Your task to perform on an android device: turn off location history Image 0: 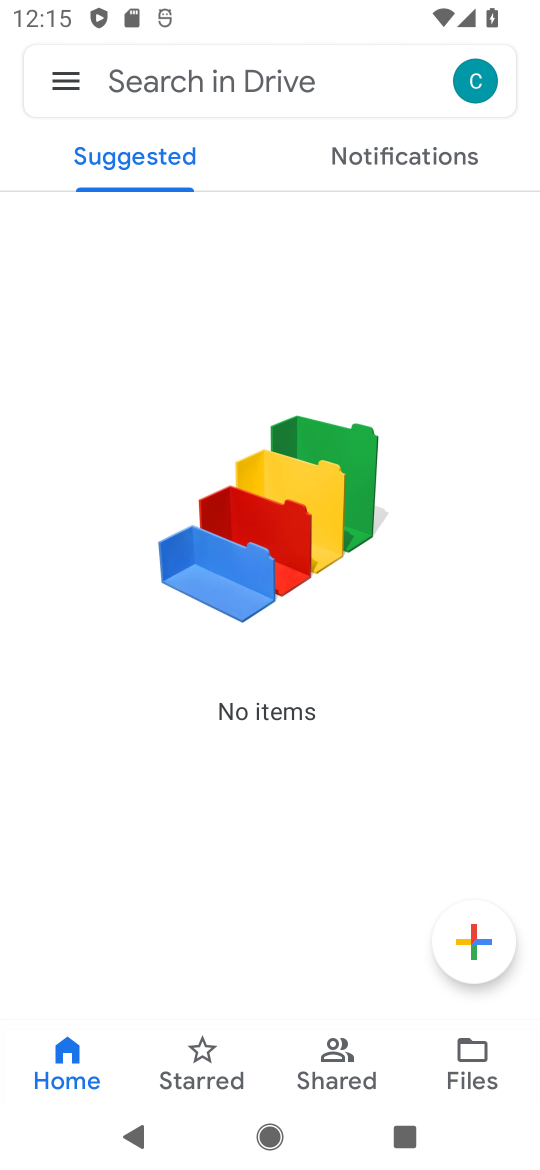
Step 0: press back button
Your task to perform on an android device: turn off location history Image 1: 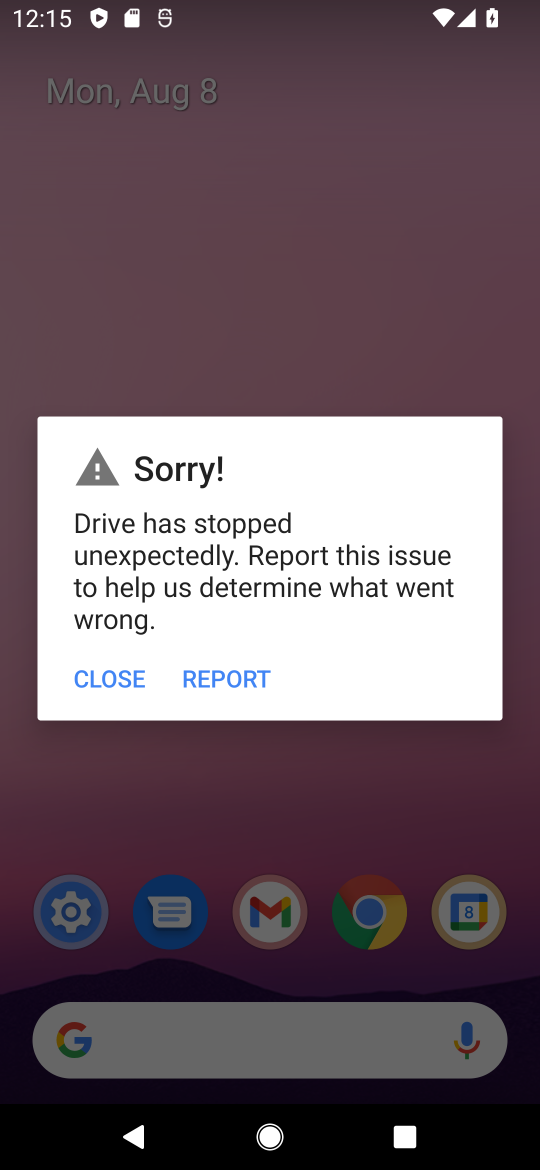
Step 1: click (94, 677)
Your task to perform on an android device: turn off location history Image 2: 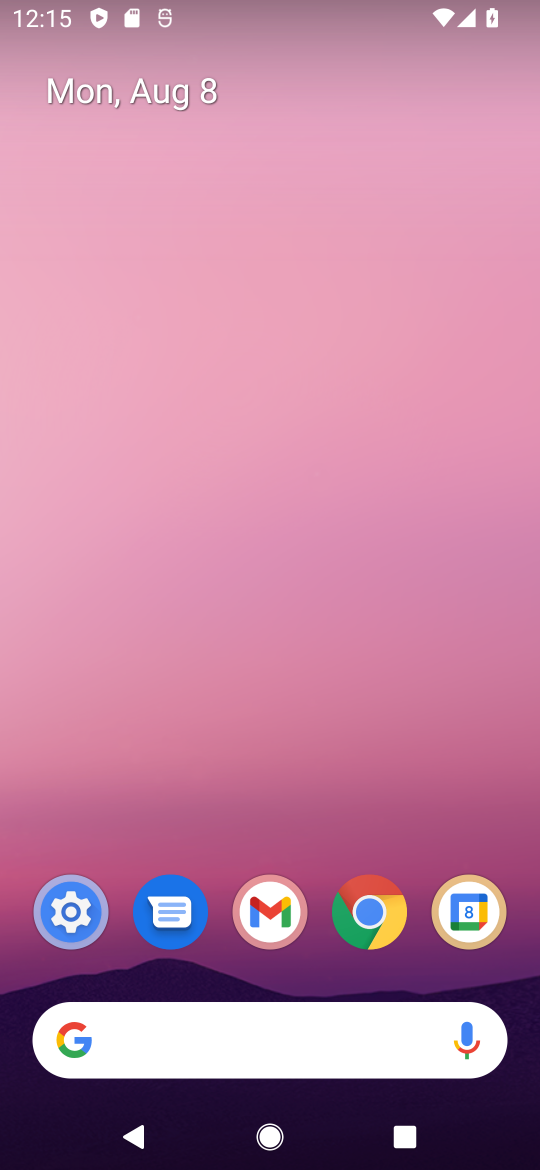
Step 2: click (85, 913)
Your task to perform on an android device: turn off location history Image 3: 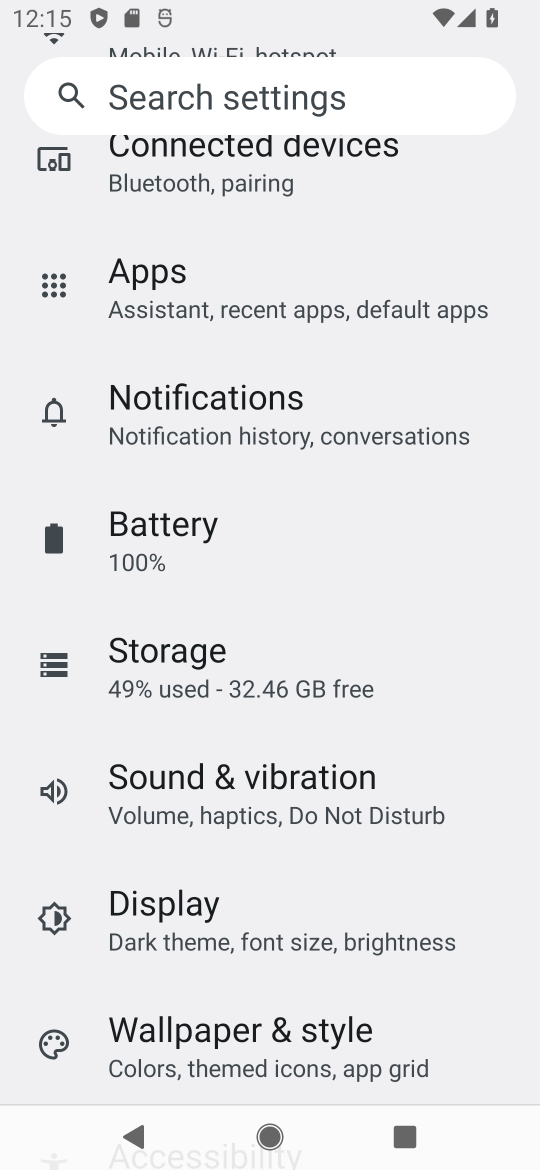
Step 3: drag from (234, 271) to (419, 280)
Your task to perform on an android device: turn off location history Image 4: 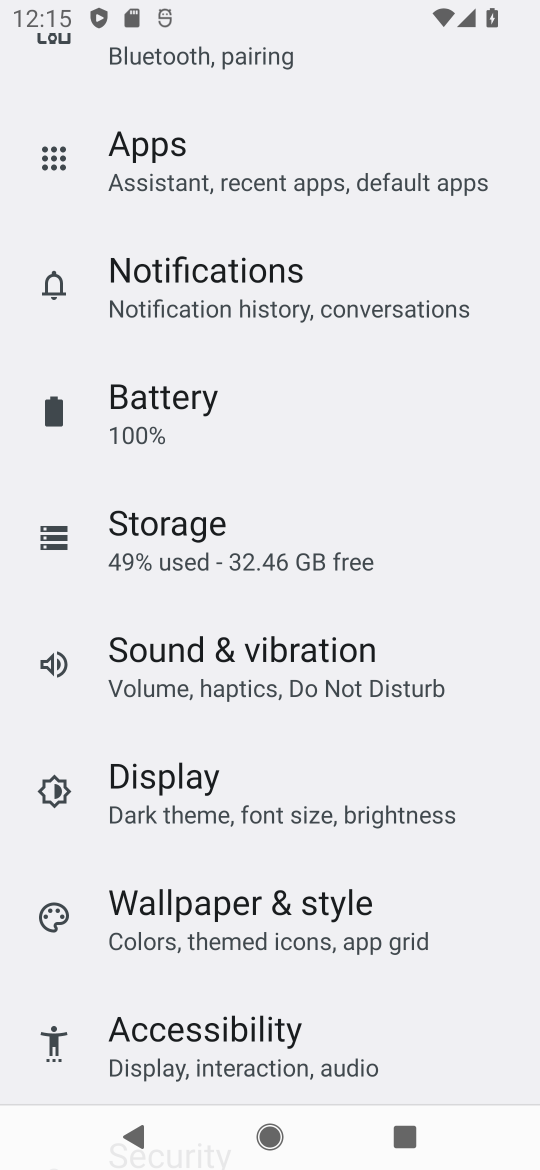
Step 4: drag from (168, 977) to (294, 213)
Your task to perform on an android device: turn off location history Image 5: 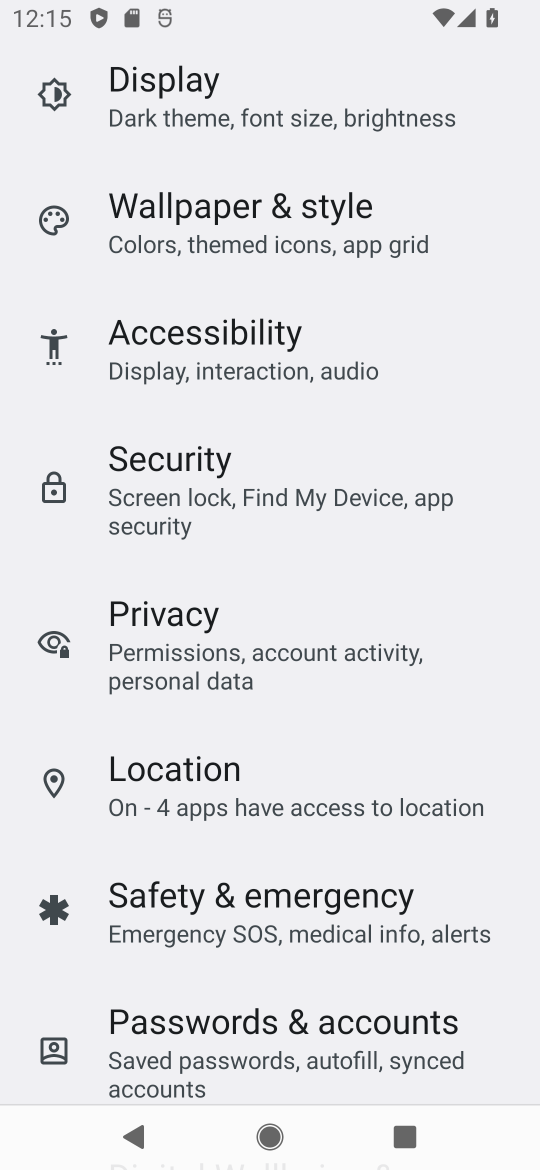
Step 5: click (223, 776)
Your task to perform on an android device: turn off location history Image 6: 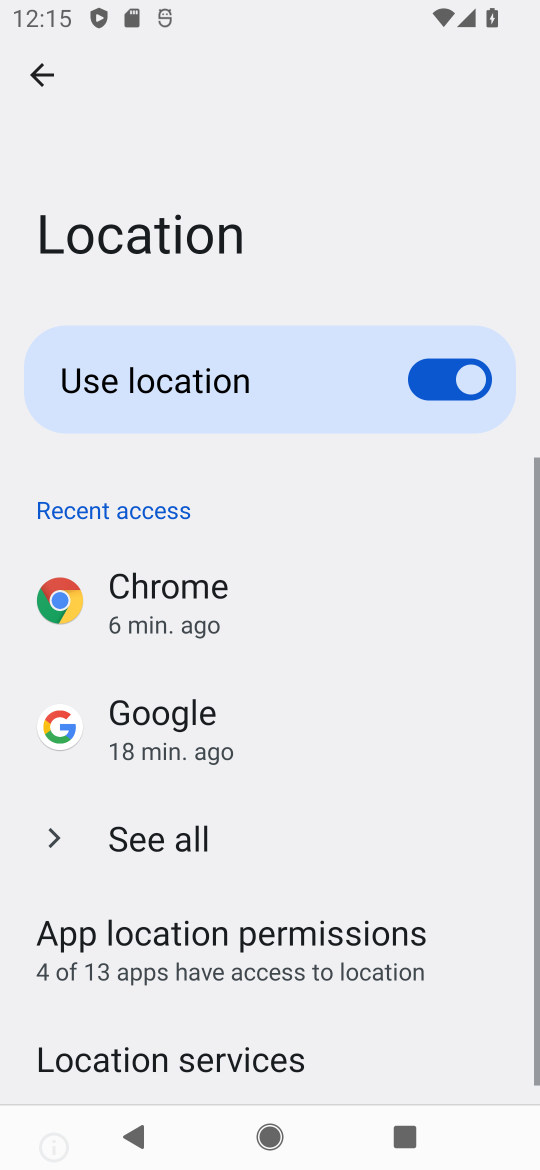
Step 6: drag from (208, 972) to (329, 131)
Your task to perform on an android device: turn off location history Image 7: 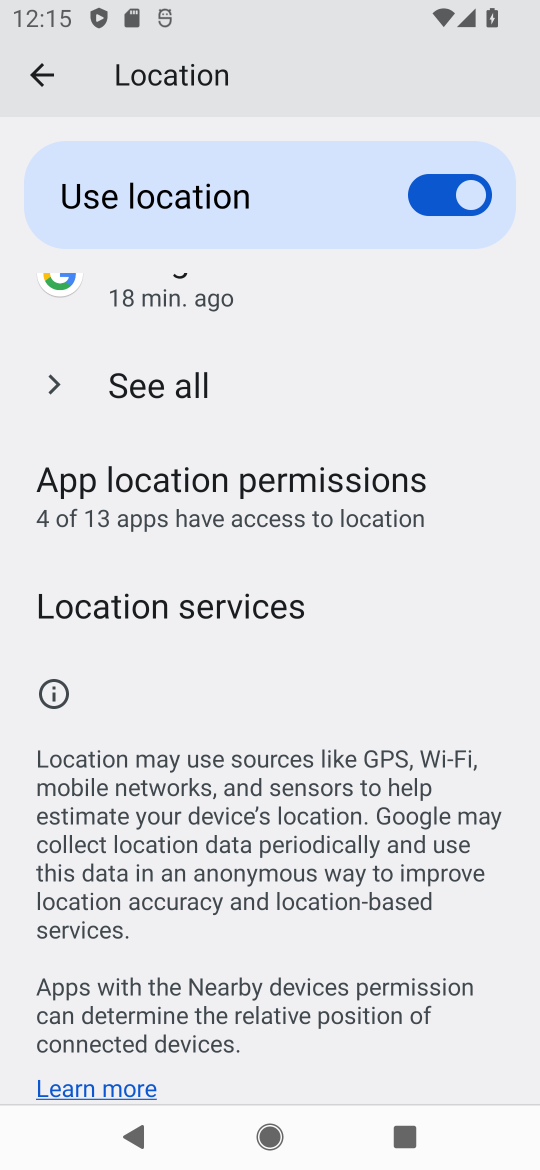
Step 7: click (203, 605)
Your task to perform on an android device: turn off location history Image 8: 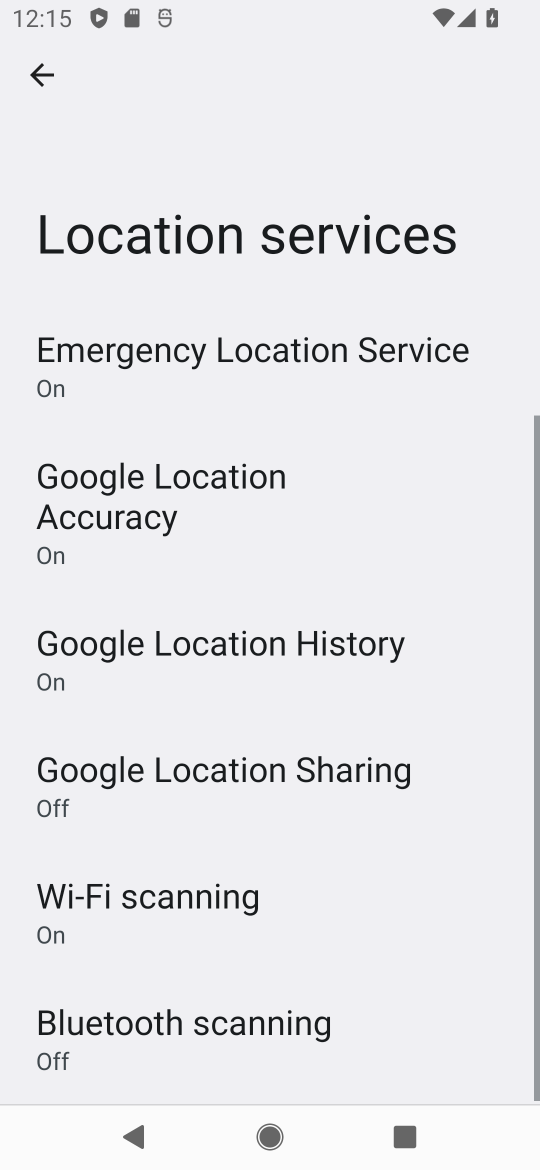
Step 8: click (218, 647)
Your task to perform on an android device: turn off location history Image 9: 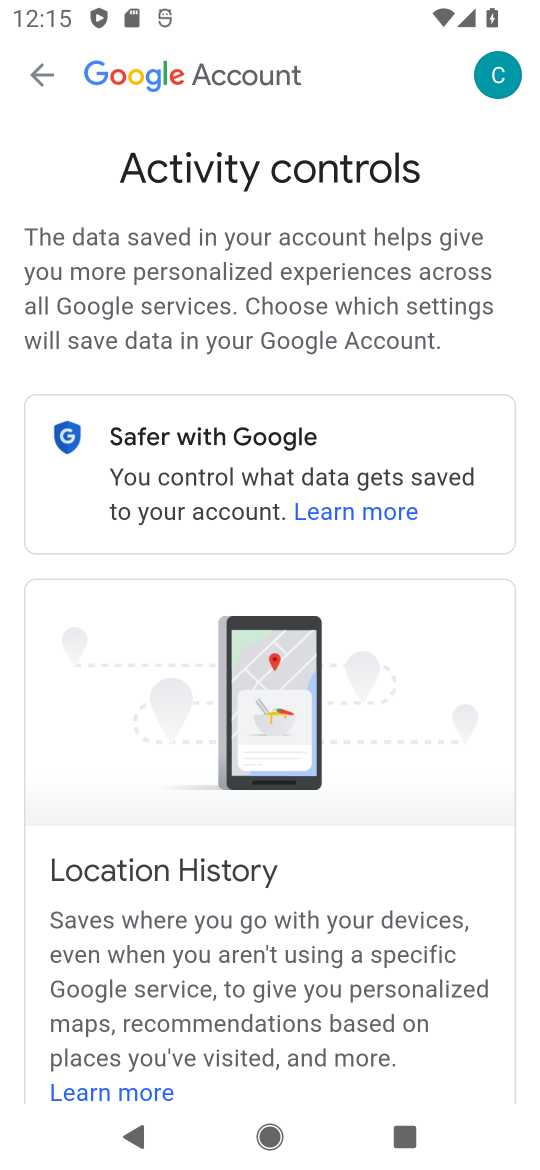
Step 9: drag from (301, 1018) to (408, 79)
Your task to perform on an android device: turn off location history Image 10: 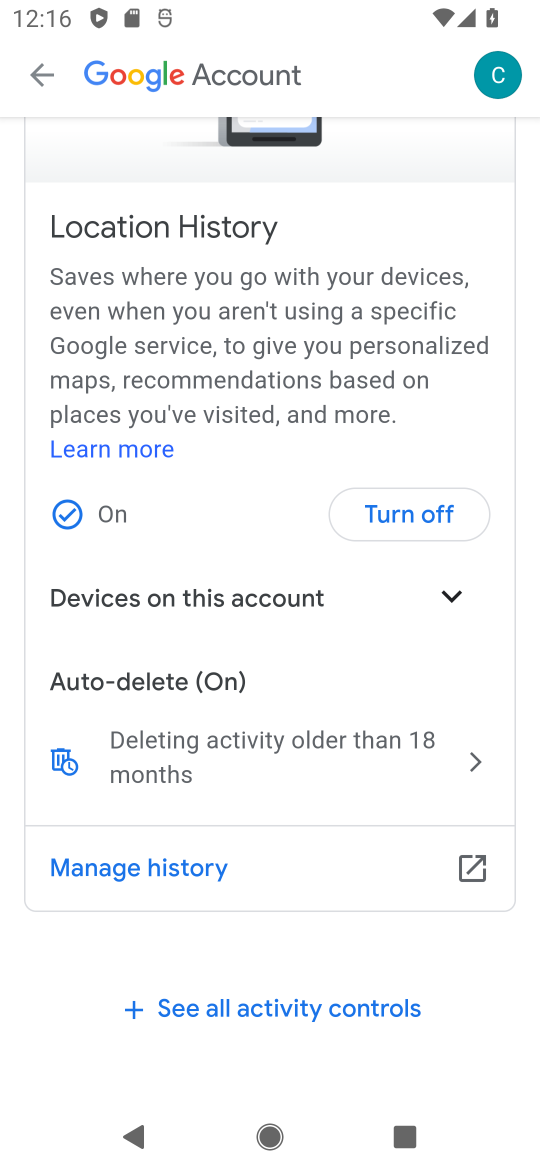
Step 10: click (407, 504)
Your task to perform on an android device: turn off location history Image 11: 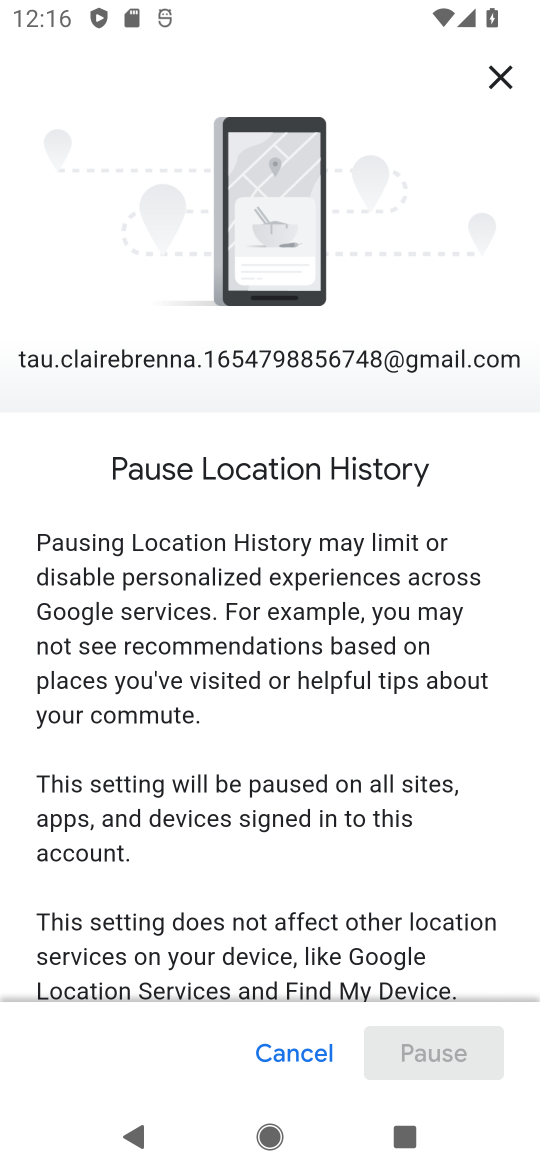
Step 11: drag from (329, 919) to (425, 53)
Your task to perform on an android device: turn off location history Image 12: 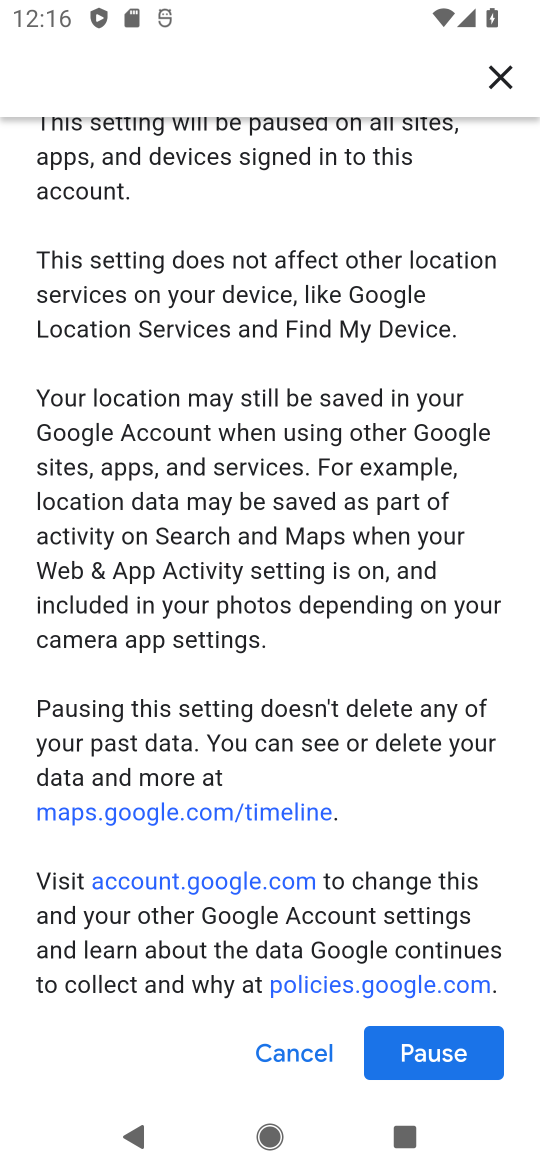
Step 12: drag from (315, 943) to (408, 18)
Your task to perform on an android device: turn off location history Image 13: 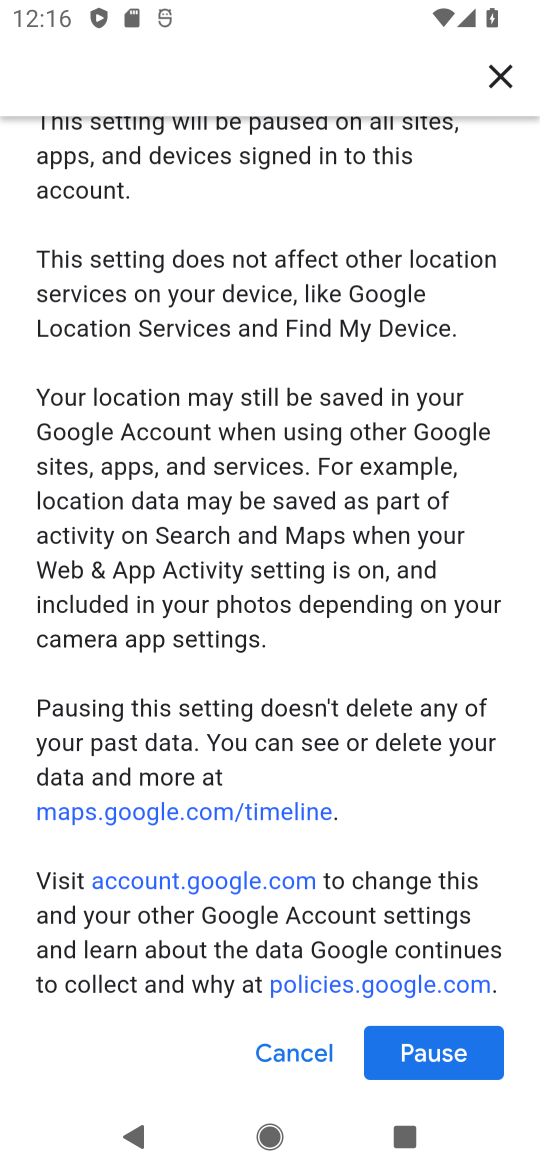
Step 13: click (446, 1051)
Your task to perform on an android device: turn off location history Image 14: 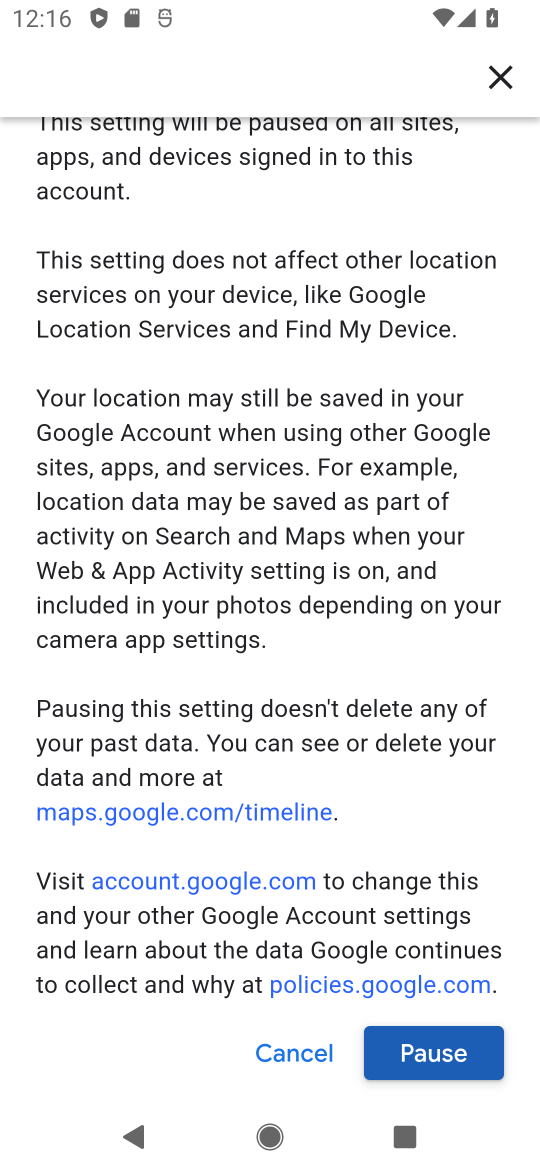
Step 14: drag from (169, 840) to (277, 124)
Your task to perform on an android device: turn off location history Image 15: 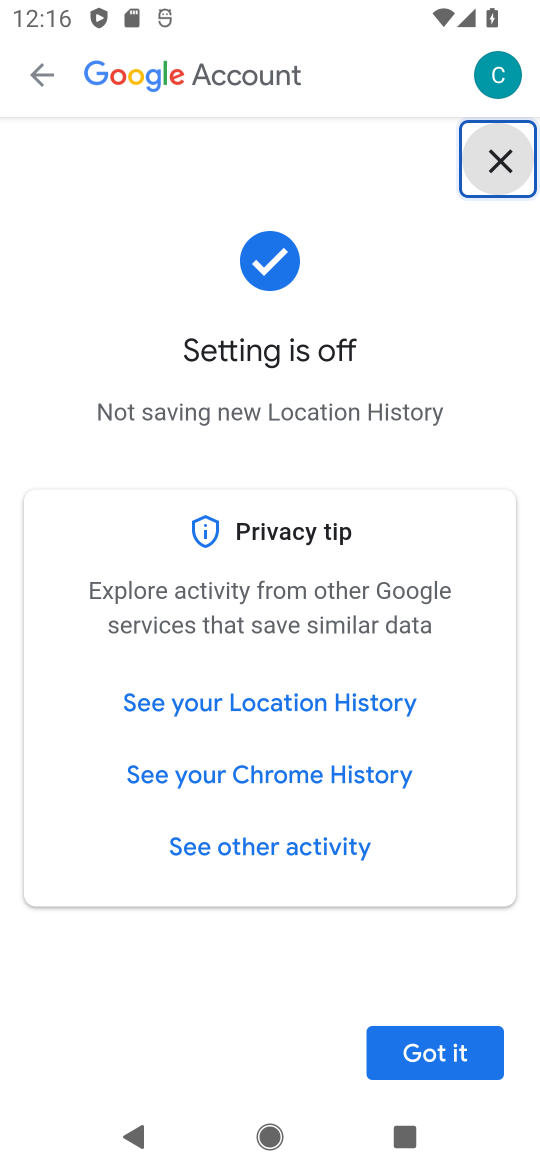
Step 15: click (428, 1047)
Your task to perform on an android device: turn off location history Image 16: 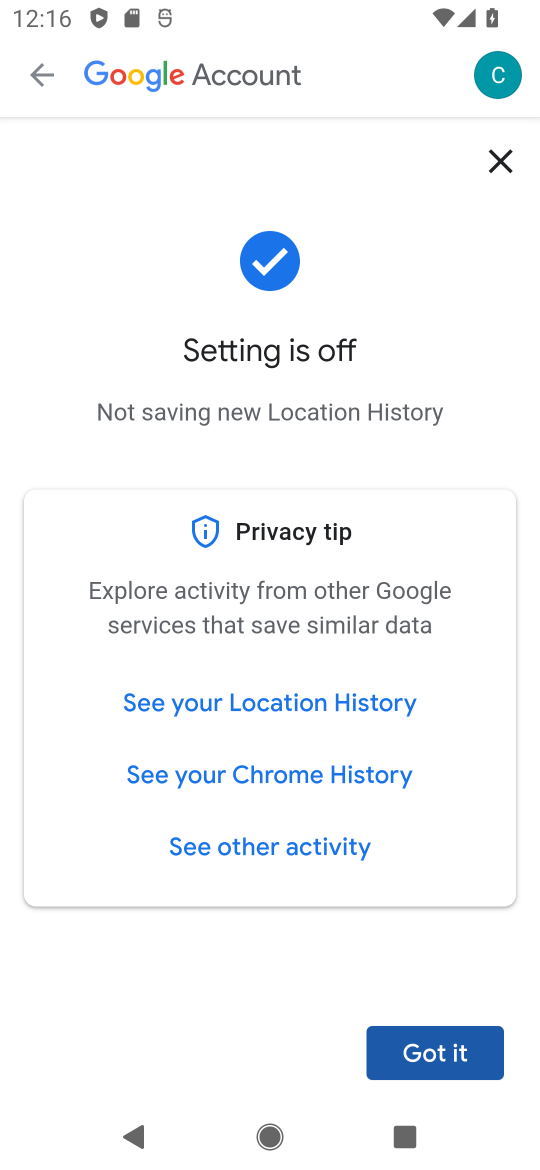
Step 16: task complete